Your task to perform on an android device: Open Reddit.com Image 0: 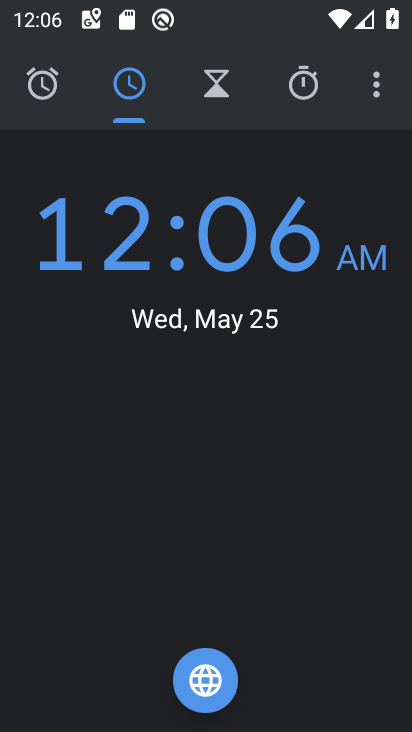
Step 0: press home button
Your task to perform on an android device: Open Reddit.com Image 1: 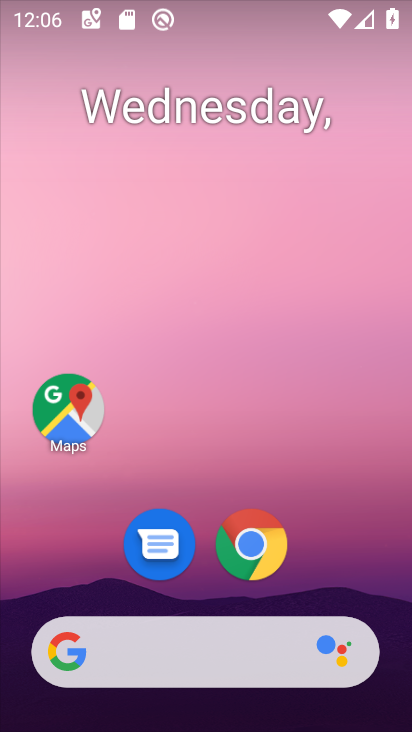
Step 1: drag from (196, 438) to (222, 112)
Your task to perform on an android device: Open Reddit.com Image 2: 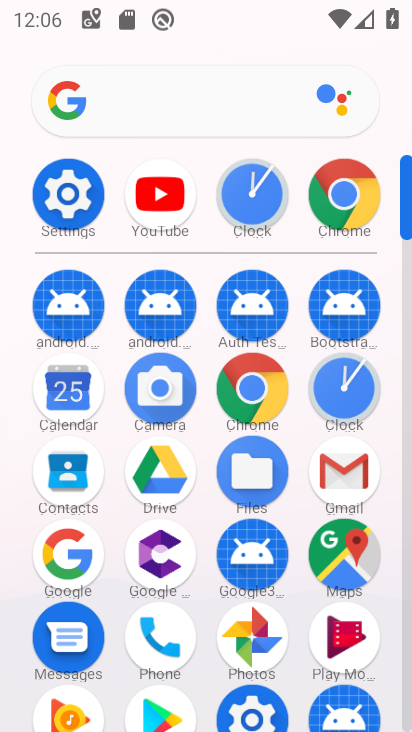
Step 2: click (257, 408)
Your task to perform on an android device: Open Reddit.com Image 3: 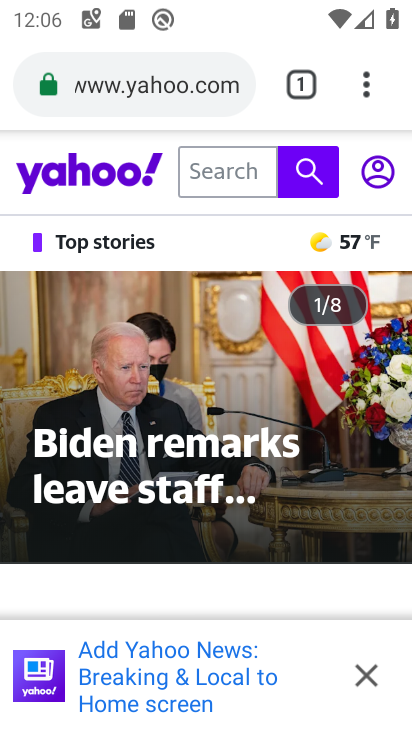
Step 3: click (314, 83)
Your task to perform on an android device: Open Reddit.com Image 4: 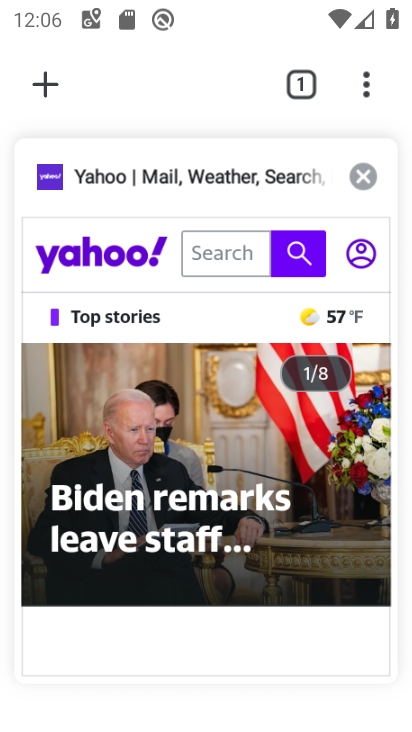
Step 4: click (56, 89)
Your task to perform on an android device: Open Reddit.com Image 5: 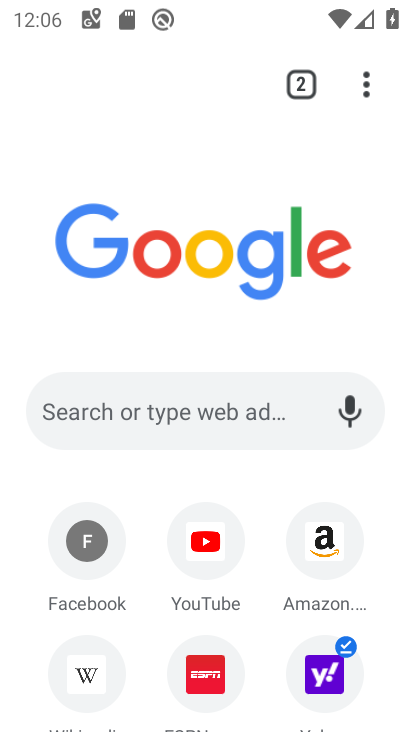
Step 5: click (179, 394)
Your task to perform on an android device: Open Reddit.com Image 6: 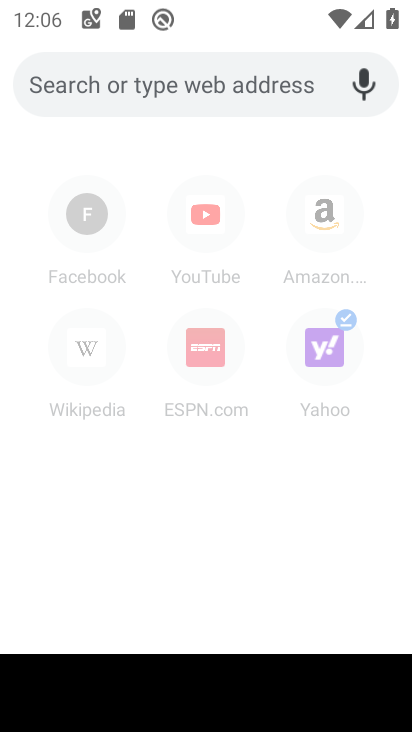
Step 6: type "Reddit.com"
Your task to perform on an android device: Open Reddit.com Image 7: 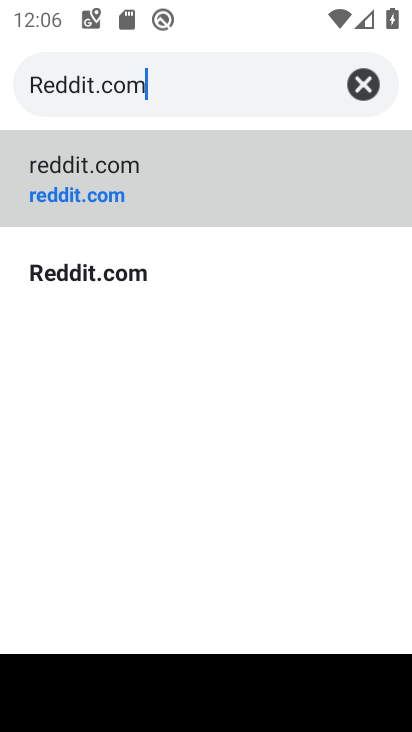
Step 7: type ""
Your task to perform on an android device: Open Reddit.com Image 8: 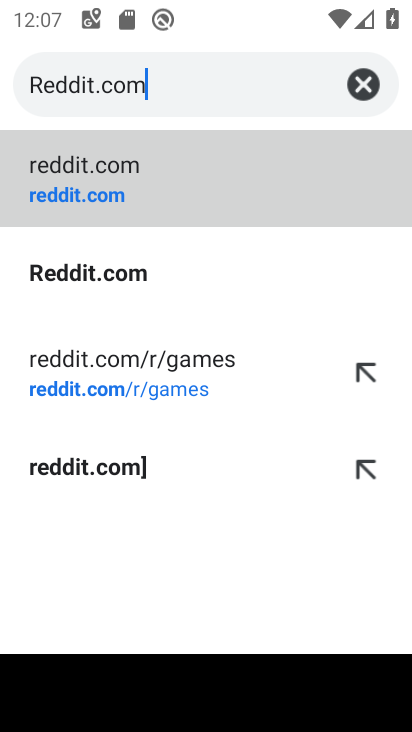
Step 8: click (84, 193)
Your task to perform on an android device: Open Reddit.com Image 9: 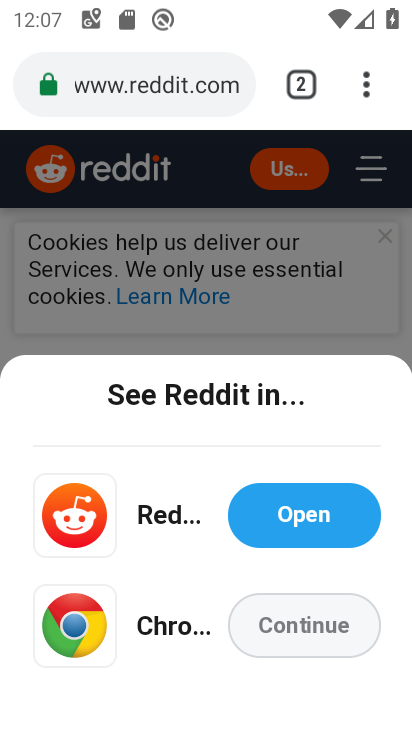
Step 9: click (316, 643)
Your task to perform on an android device: Open Reddit.com Image 10: 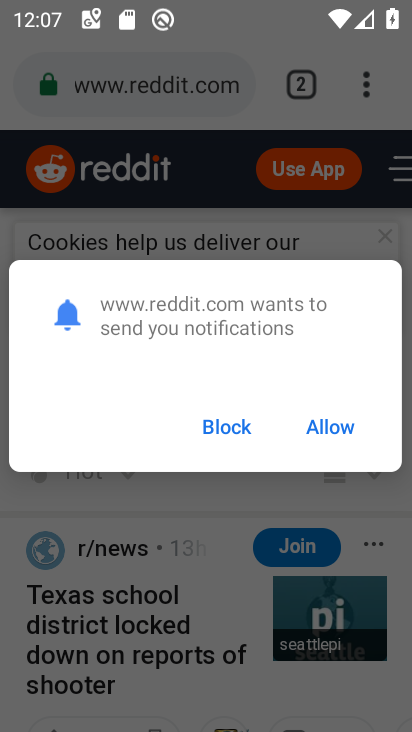
Step 10: click (336, 426)
Your task to perform on an android device: Open Reddit.com Image 11: 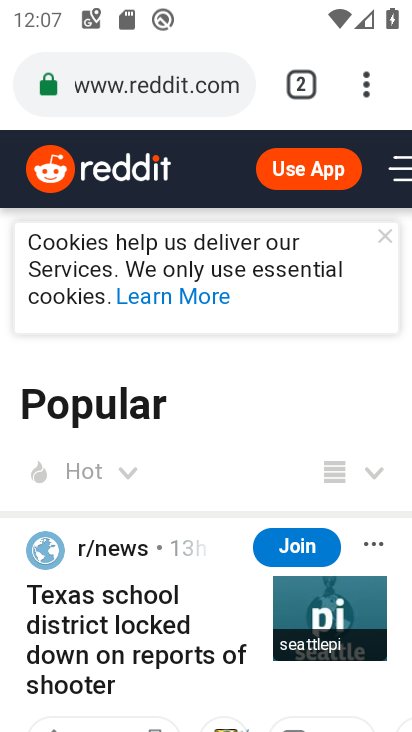
Step 11: task complete